Your task to perform on an android device: open chrome and create a bookmark for the current page Image 0: 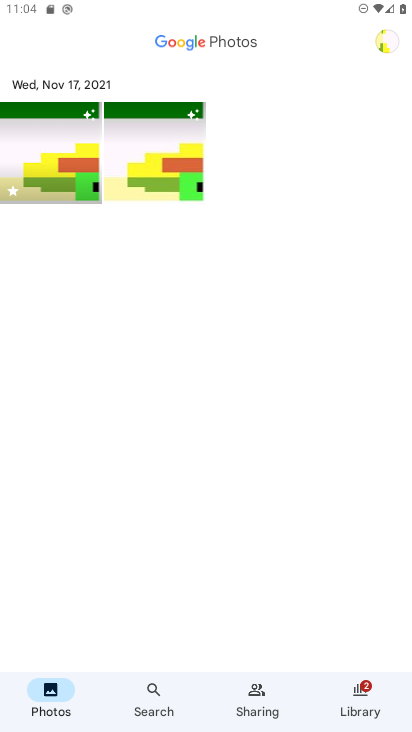
Step 0: press back button
Your task to perform on an android device: open chrome and create a bookmark for the current page Image 1: 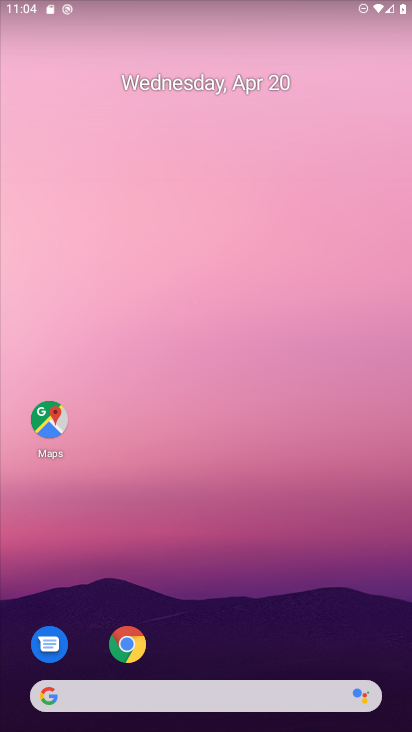
Step 1: drag from (240, 638) to (256, 88)
Your task to perform on an android device: open chrome and create a bookmark for the current page Image 2: 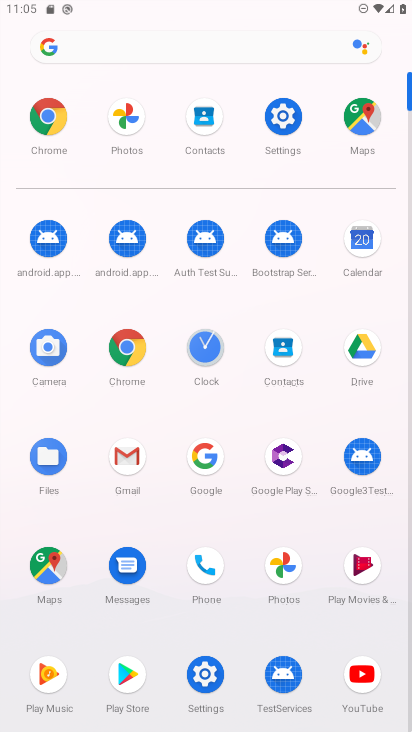
Step 2: click (126, 358)
Your task to perform on an android device: open chrome and create a bookmark for the current page Image 3: 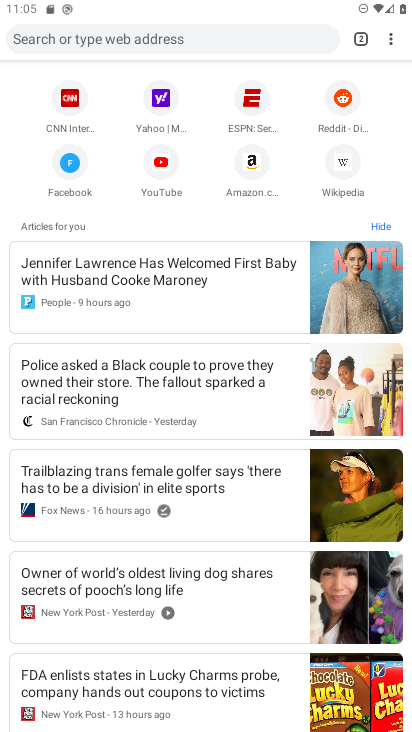
Step 3: click (223, 272)
Your task to perform on an android device: open chrome and create a bookmark for the current page Image 4: 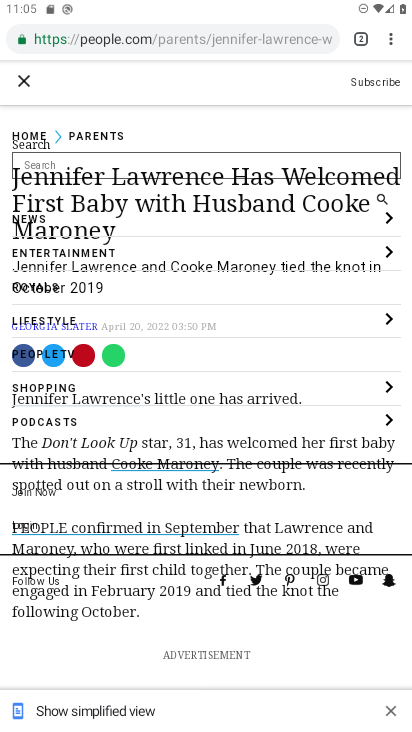
Step 4: click (391, 30)
Your task to perform on an android device: open chrome and create a bookmark for the current page Image 5: 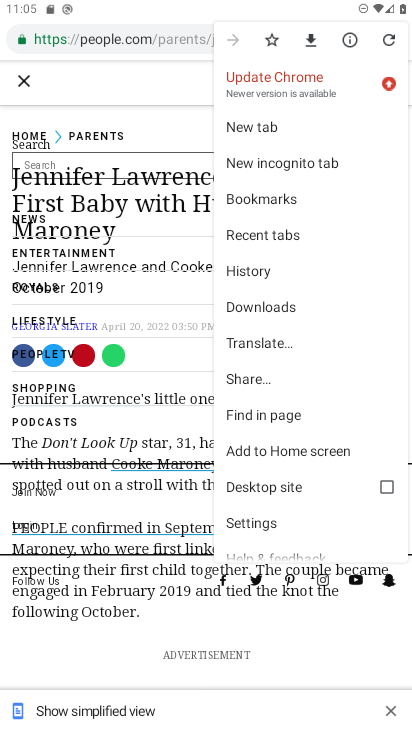
Step 5: click (267, 45)
Your task to perform on an android device: open chrome and create a bookmark for the current page Image 6: 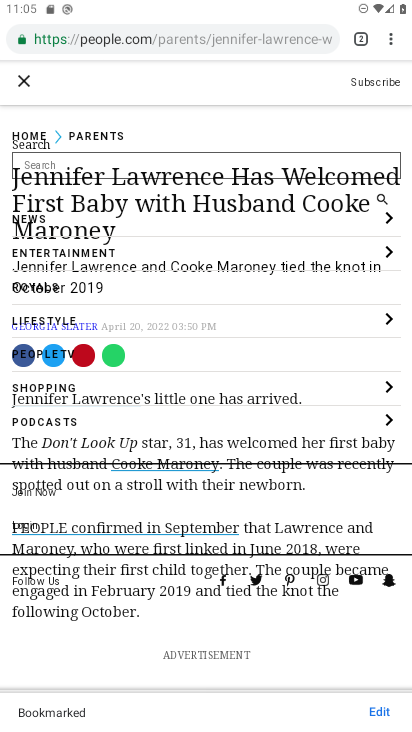
Step 6: task complete